Your task to perform on an android device: set default search engine in the chrome app Image 0: 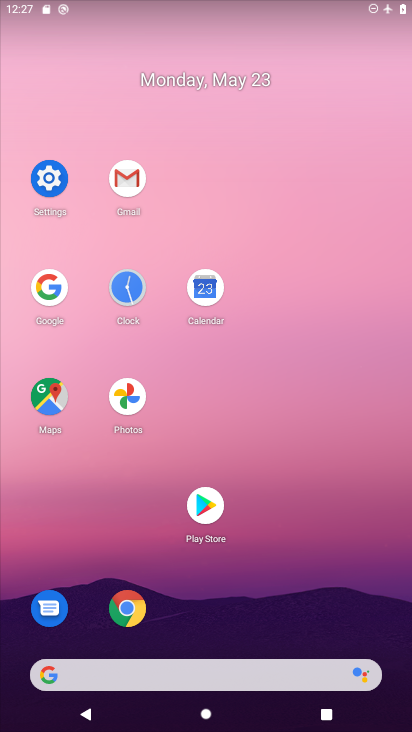
Step 0: click (128, 604)
Your task to perform on an android device: set default search engine in the chrome app Image 1: 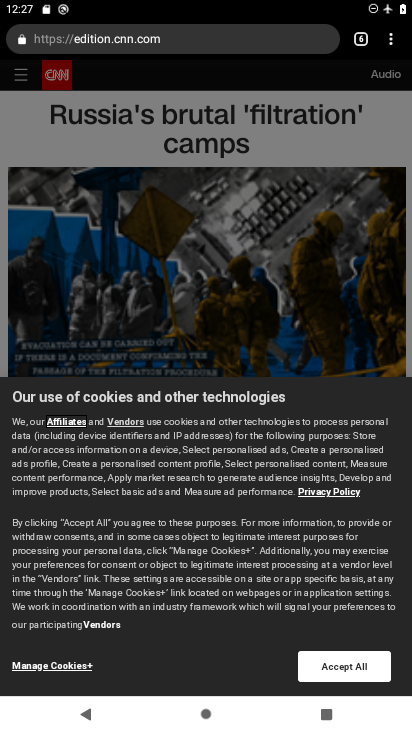
Step 1: click (404, 48)
Your task to perform on an android device: set default search engine in the chrome app Image 2: 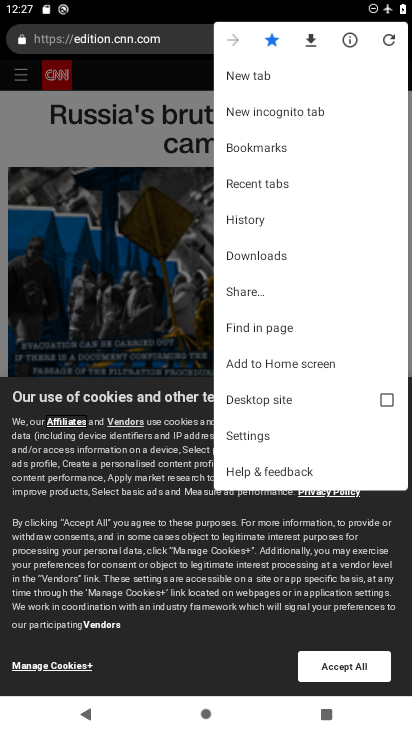
Step 2: click (273, 428)
Your task to perform on an android device: set default search engine in the chrome app Image 3: 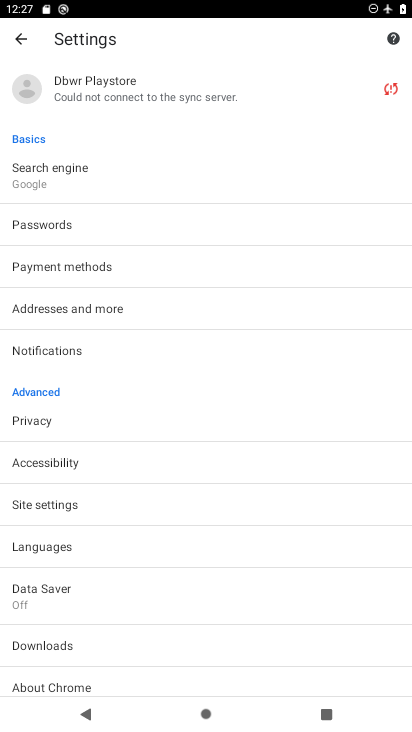
Step 3: click (42, 176)
Your task to perform on an android device: set default search engine in the chrome app Image 4: 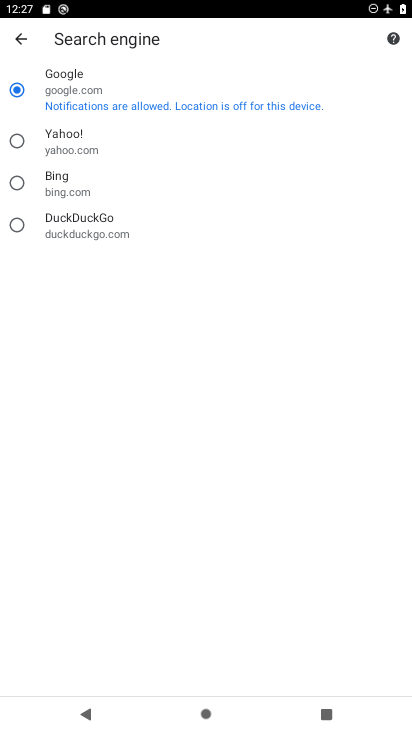
Step 4: task complete